Your task to perform on an android device: read, delete, or share a saved page in the chrome app Image 0: 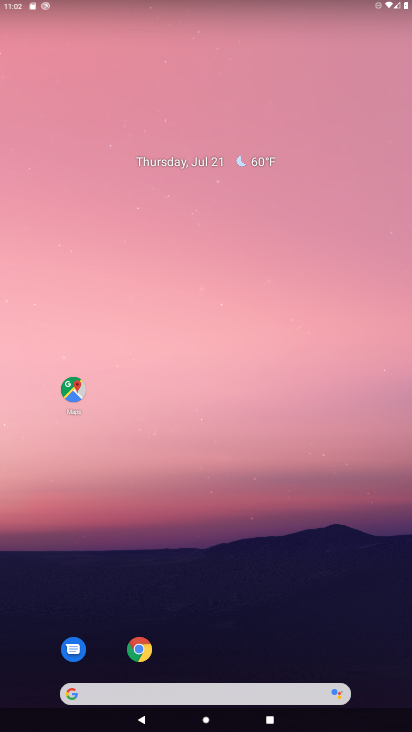
Step 0: click (134, 647)
Your task to perform on an android device: read, delete, or share a saved page in the chrome app Image 1: 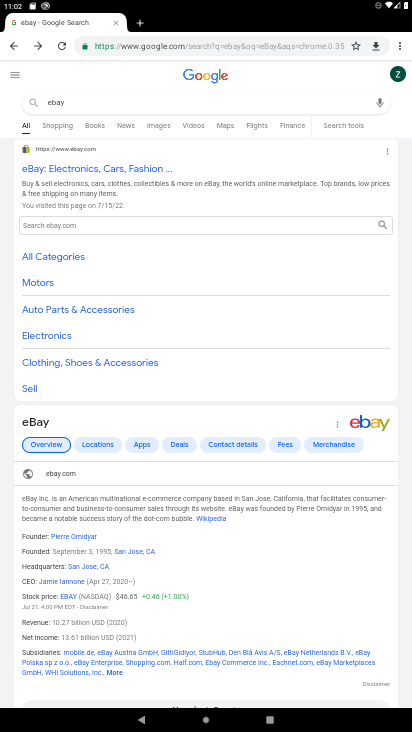
Step 1: click (317, 42)
Your task to perform on an android device: read, delete, or share a saved page in the chrome app Image 2: 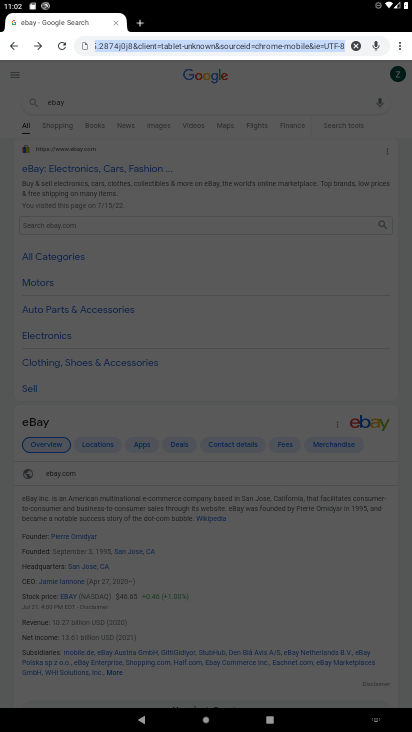
Step 2: click (354, 45)
Your task to perform on an android device: read, delete, or share a saved page in the chrome app Image 3: 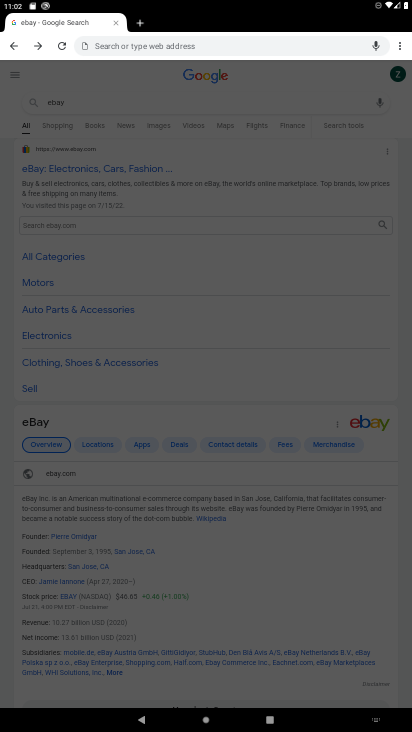
Step 3: press back button
Your task to perform on an android device: read, delete, or share a saved page in the chrome app Image 4: 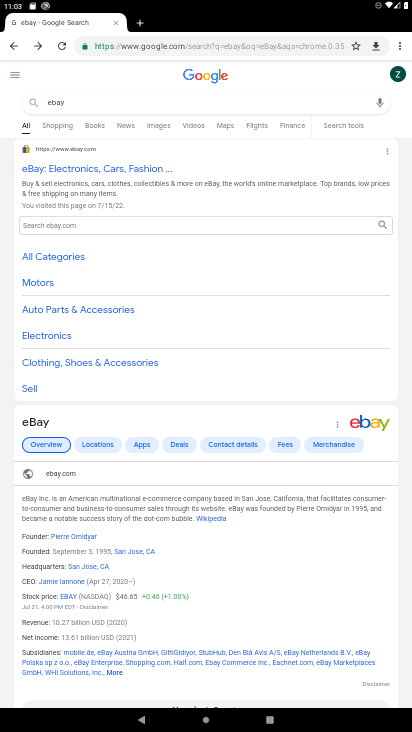
Step 4: click (402, 45)
Your task to perform on an android device: read, delete, or share a saved page in the chrome app Image 5: 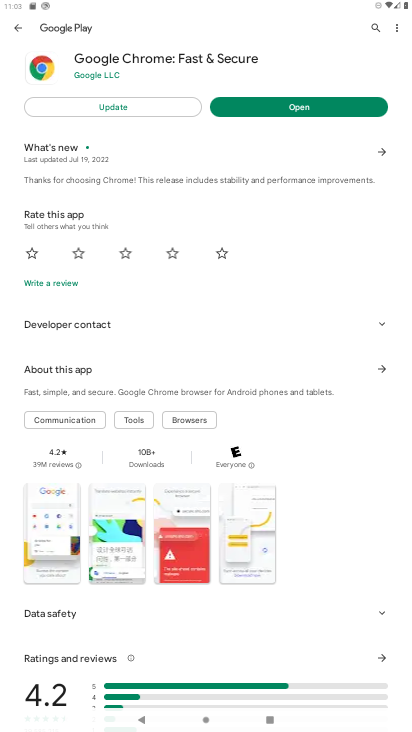
Step 5: click (157, 103)
Your task to perform on an android device: read, delete, or share a saved page in the chrome app Image 6: 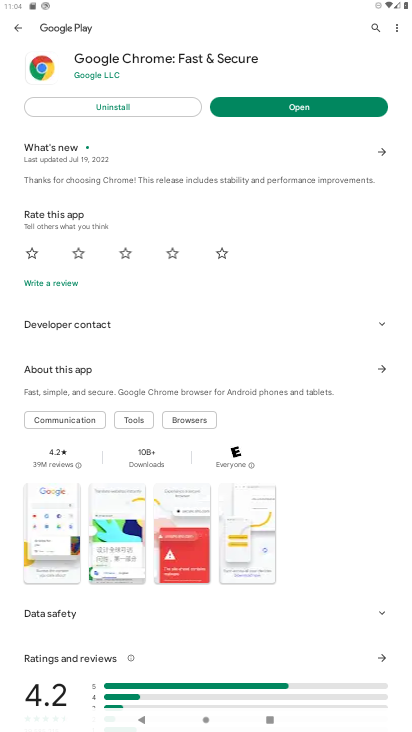
Step 6: click (262, 103)
Your task to perform on an android device: read, delete, or share a saved page in the chrome app Image 7: 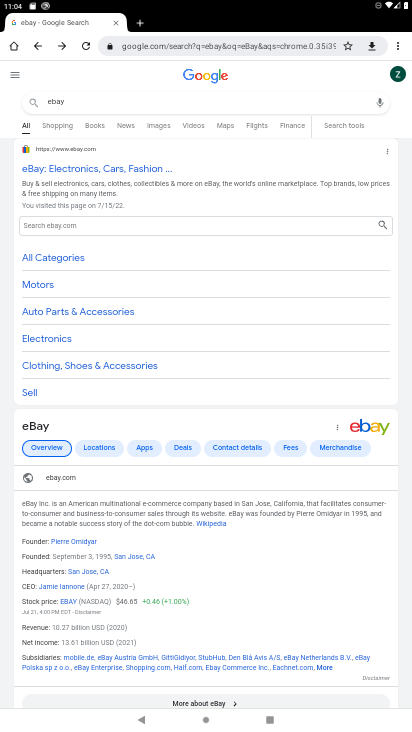
Step 7: click (396, 44)
Your task to perform on an android device: read, delete, or share a saved page in the chrome app Image 8: 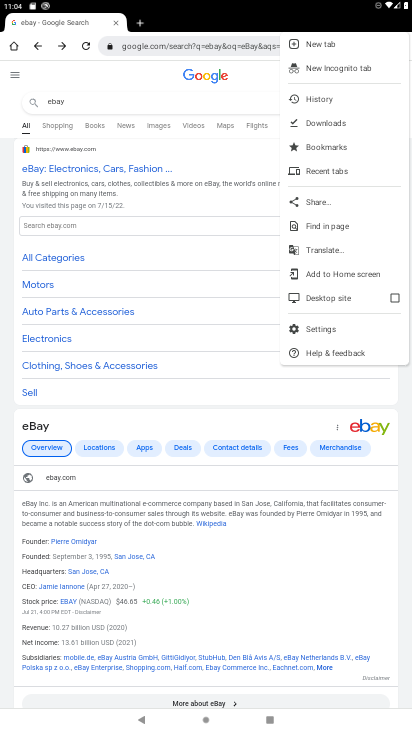
Step 8: click (308, 327)
Your task to perform on an android device: read, delete, or share a saved page in the chrome app Image 9: 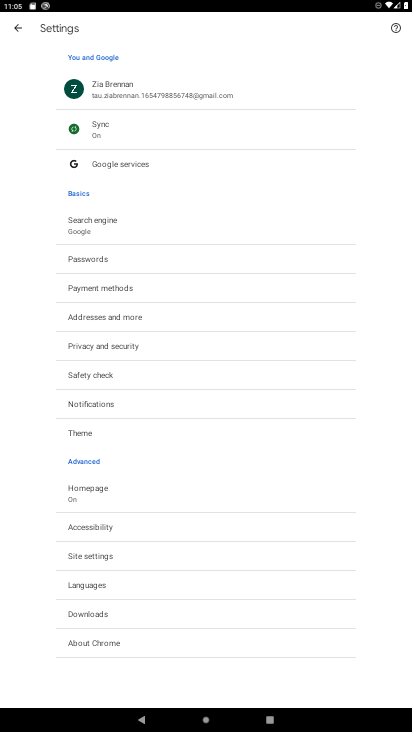
Step 9: task complete